Your task to perform on an android device: clear history in the chrome app Image 0: 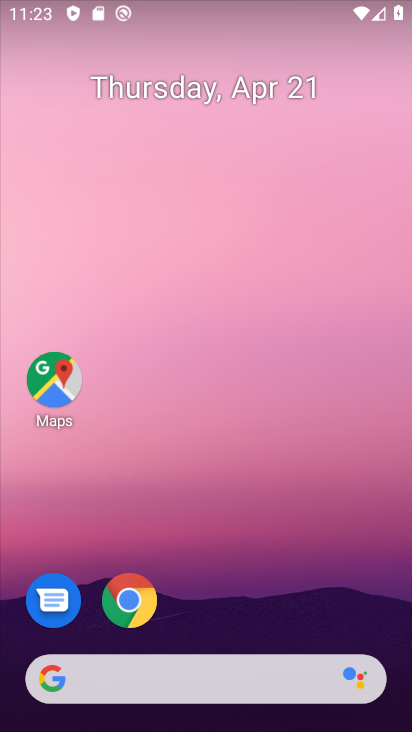
Step 0: click (136, 586)
Your task to perform on an android device: clear history in the chrome app Image 1: 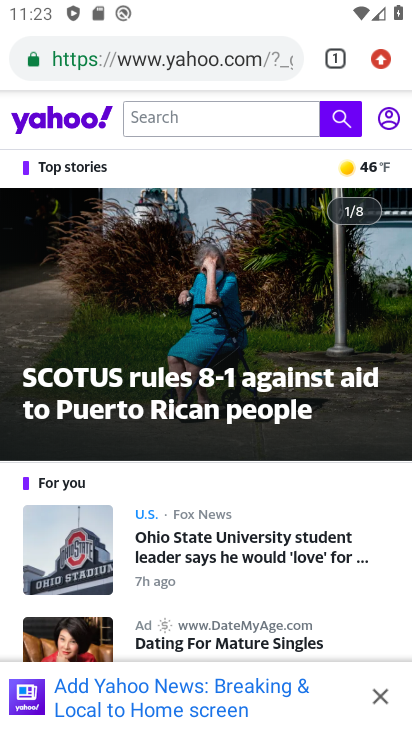
Step 1: click (386, 63)
Your task to perform on an android device: clear history in the chrome app Image 2: 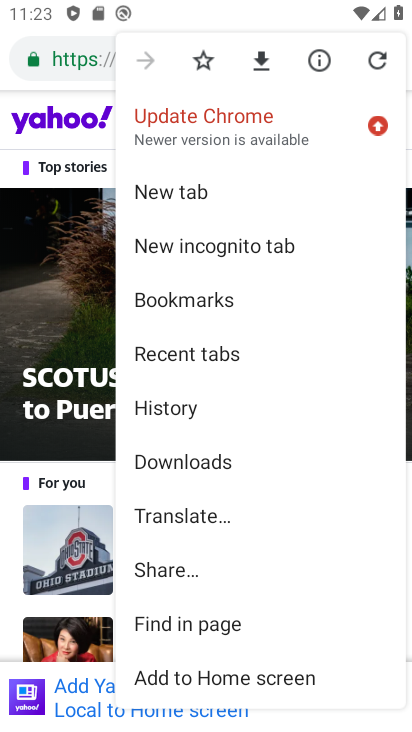
Step 2: click (171, 409)
Your task to perform on an android device: clear history in the chrome app Image 3: 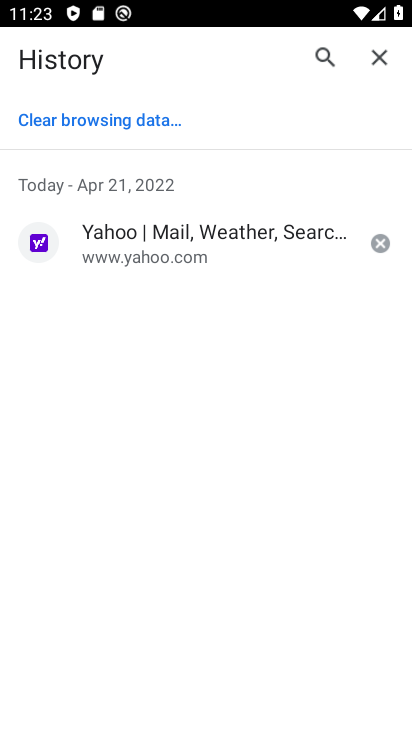
Step 3: click (145, 117)
Your task to perform on an android device: clear history in the chrome app Image 4: 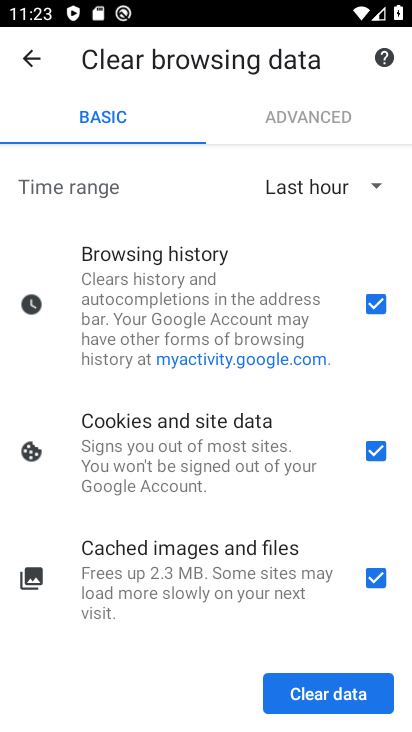
Step 4: click (303, 696)
Your task to perform on an android device: clear history in the chrome app Image 5: 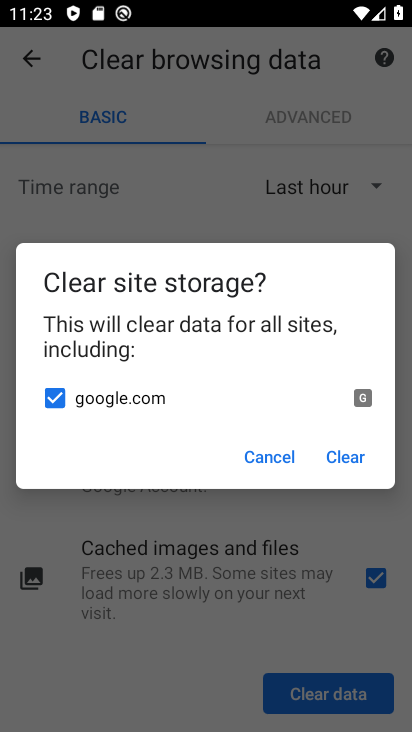
Step 5: click (342, 451)
Your task to perform on an android device: clear history in the chrome app Image 6: 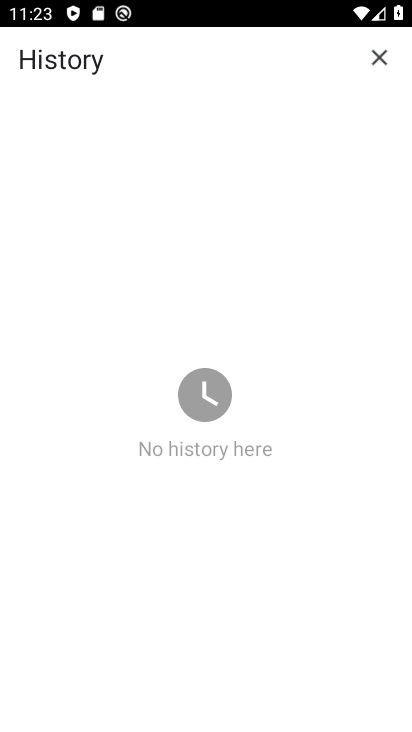
Step 6: task complete